Your task to perform on an android device: turn off notifications settings in the gmail app Image 0: 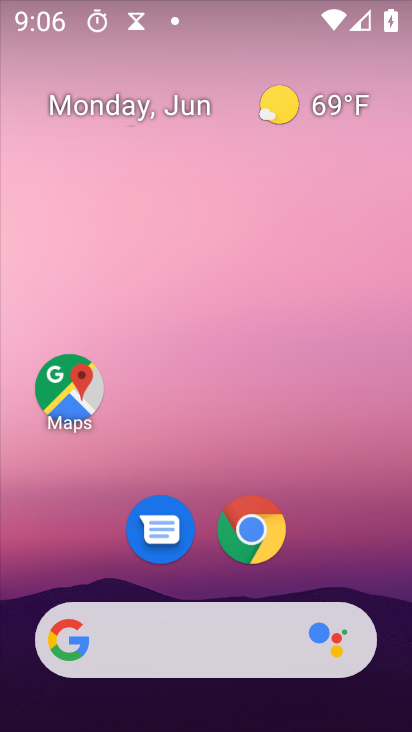
Step 0: drag from (398, 699) to (408, 87)
Your task to perform on an android device: turn off notifications settings in the gmail app Image 1: 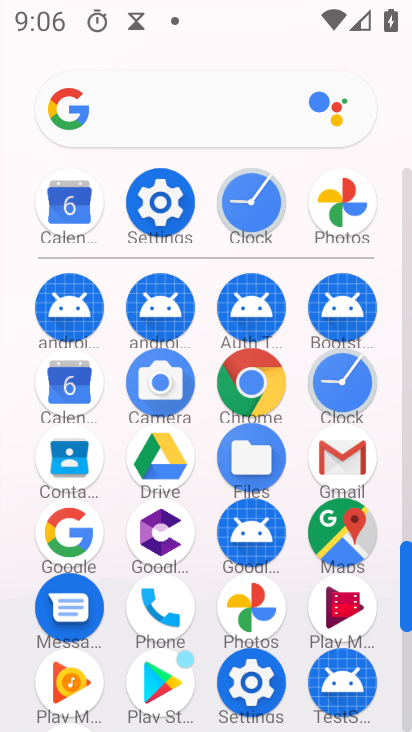
Step 1: click (337, 461)
Your task to perform on an android device: turn off notifications settings in the gmail app Image 2: 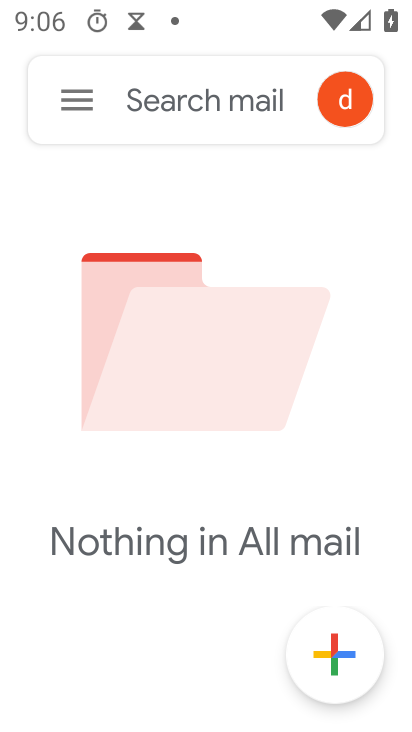
Step 2: click (69, 86)
Your task to perform on an android device: turn off notifications settings in the gmail app Image 3: 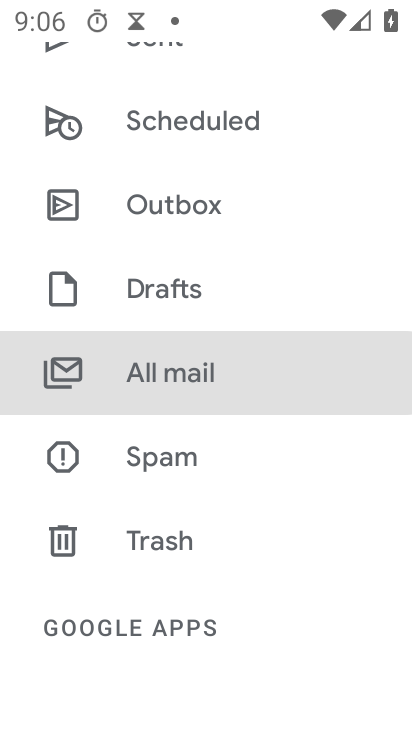
Step 3: drag from (210, 632) to (250, 129)
Your task to perform on an android device: turn off notifications settings in the gmail app Image 4: 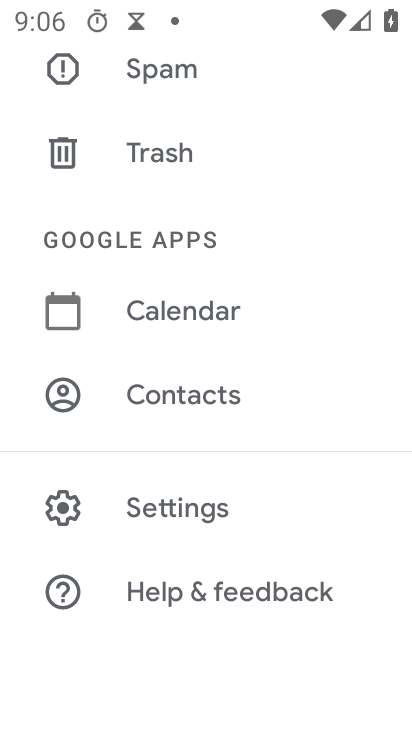
Step 4: click (199, 520)
Your task to perform on an android device: turn off notifications settings in the gmail app Image 5: 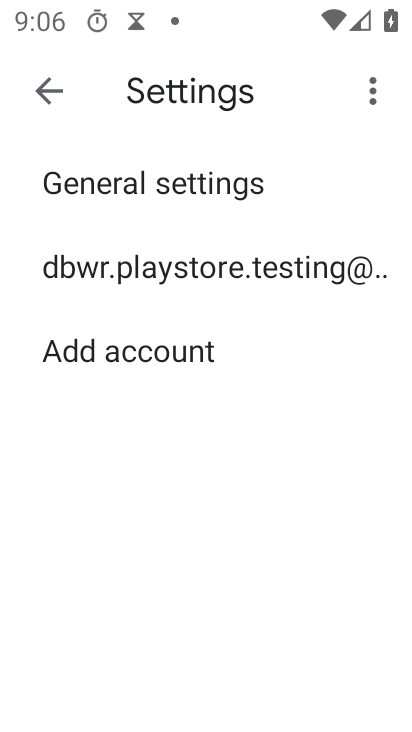
Step 5: click (223, 170)
Your task to perform on an android device: turn off notifications settings in the gmail app Image 6: 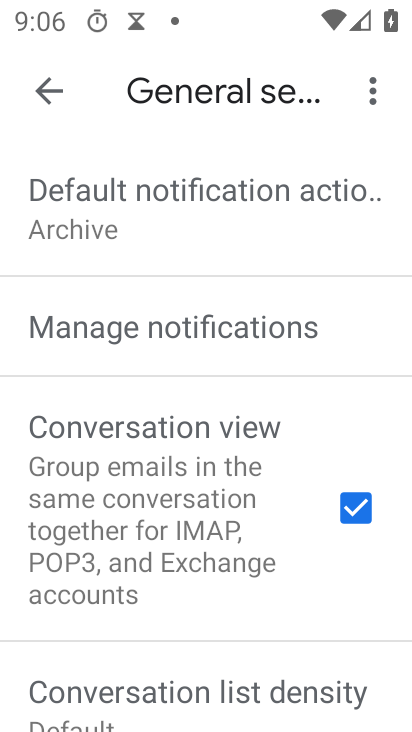
Step 6: click (237, 328)
Your task to perform on an android device: turn off notifications settings in the gmail app Image 7: 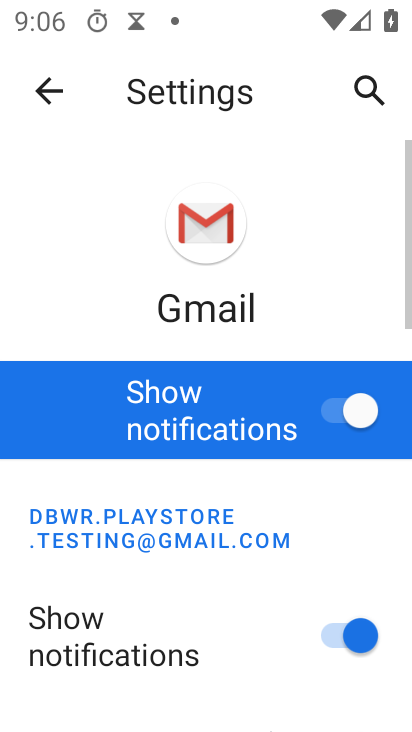
Step 7: click (354, 408)
Your task to perform on an android device: turn off notifications settings in the gmail app Image 8: 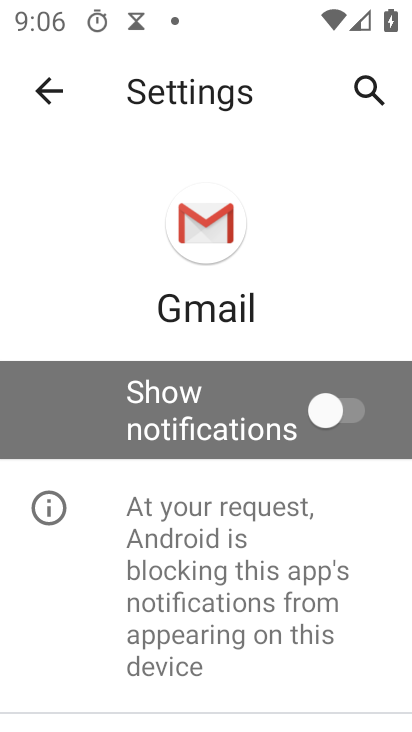
Step 8: task complete